Your task to perform on an android device: allow notifications from all sites in the chrome app Image 0: 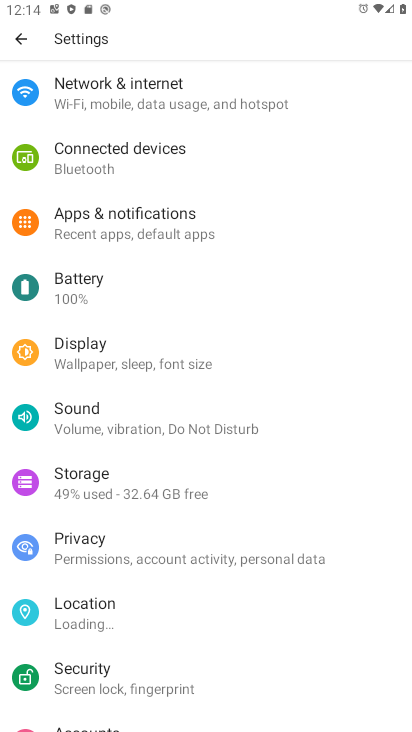
Step 0: press home button
Your task to perform on an android device: allow notifications from all sites in the chrome app Image 1: 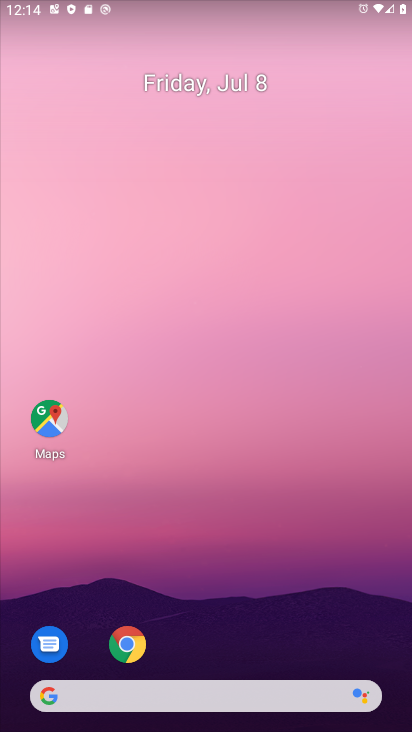
Step 1: click (131, 644)
Your task to perform on an android device: allow notifications from all sites in the chrome app Image 2: 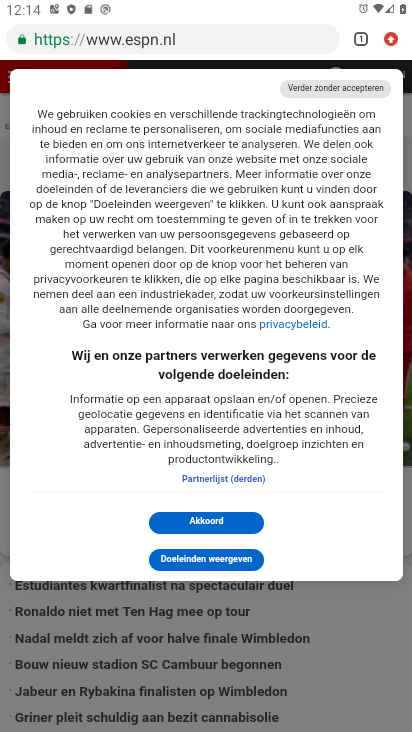
Step 2: click (397, 39)
Your task to perform on an android device: allow notifications from all sites in the chrome app Image 3: 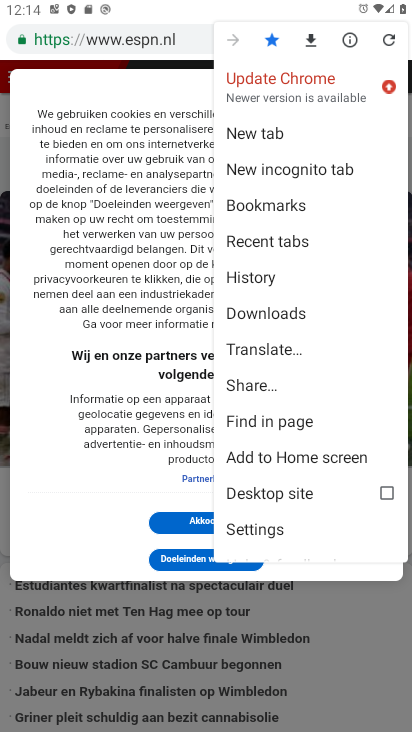
Step 3: click (253, 529)
Your task to perform on an android device: allow notifications from all sites in the chrome app Image 4: 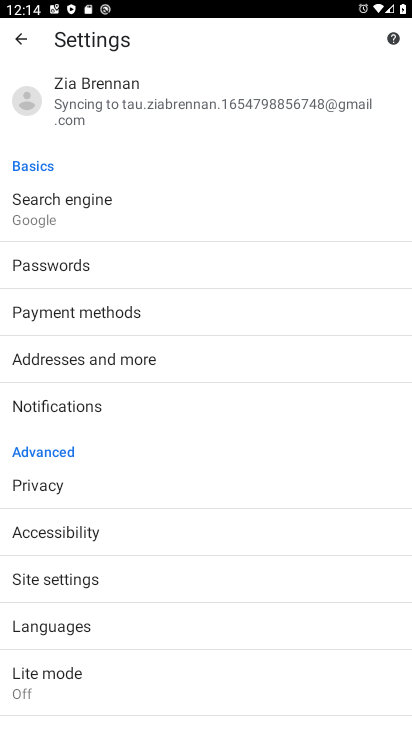
Step 4: click (86, 405)
Your task to perform on an android device: allow notifications from all sites in the chrome app Image 5: 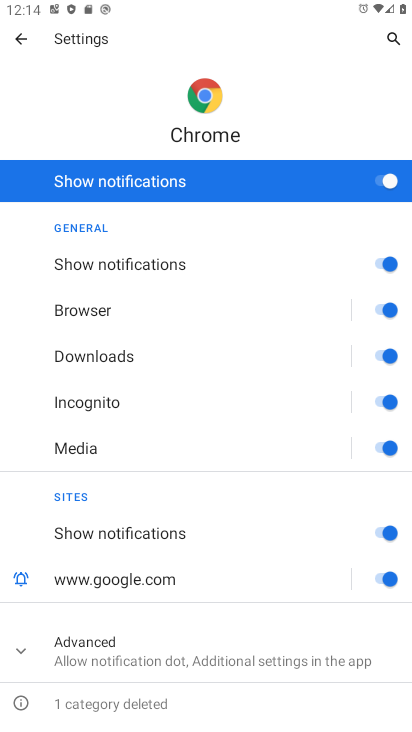
Step 5: task complete